Your task to perform on an android device: Search for vegetarian restaurants on Maps Image 0: 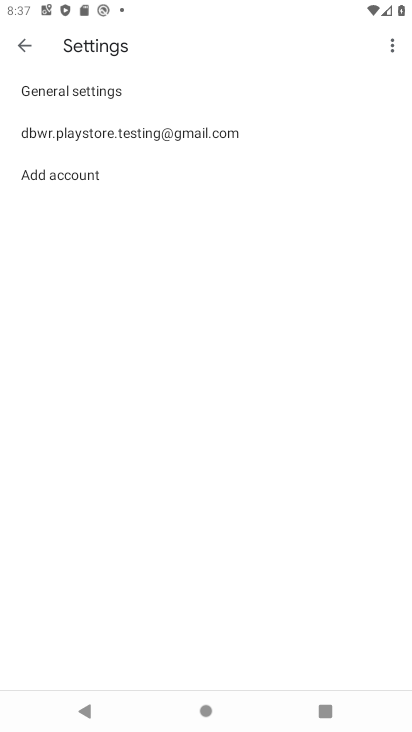
Step 0: press home button
Your task to perform on an android device: Search for vegetarian restaurants on Maps Image 1: 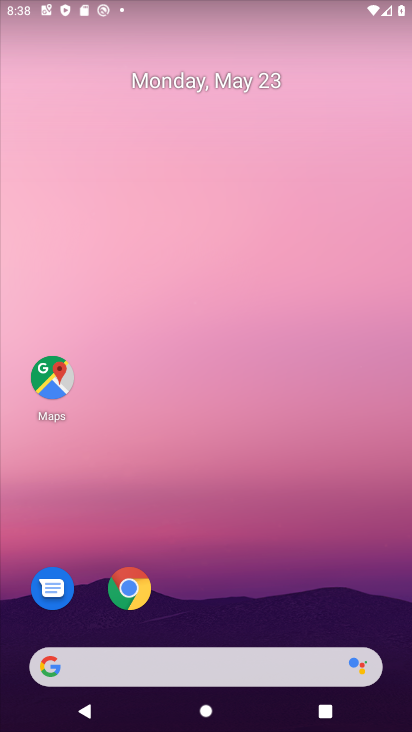
Step 1: click (46, 381)
Your task to perform on an android device: Search for vegetarian restaurants on Maps Image 2: 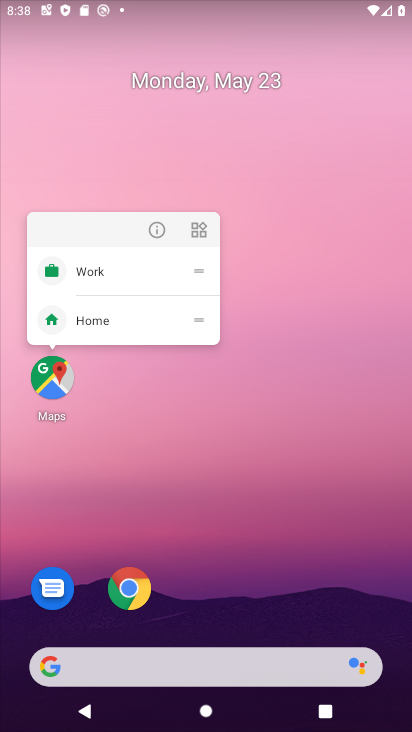
Step 2: click (46, 381)
Your task to perform on an android device: Search for vegetarian restaurants on Maps Image 3: 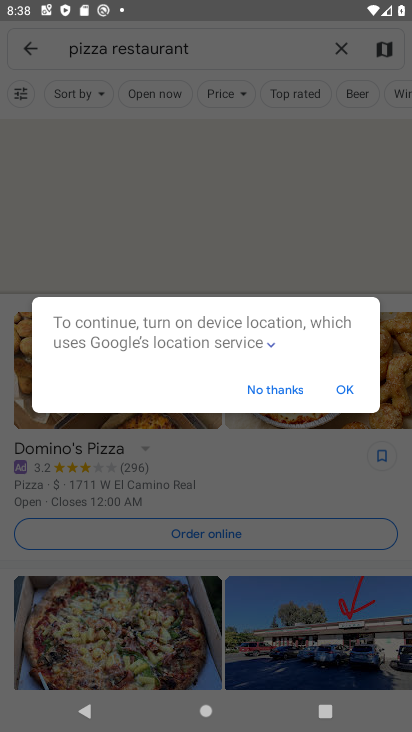
Step 3: click (334, 388)
Your task to perform on an android device: Search for vegetarian restaurants on Maps Image 4: 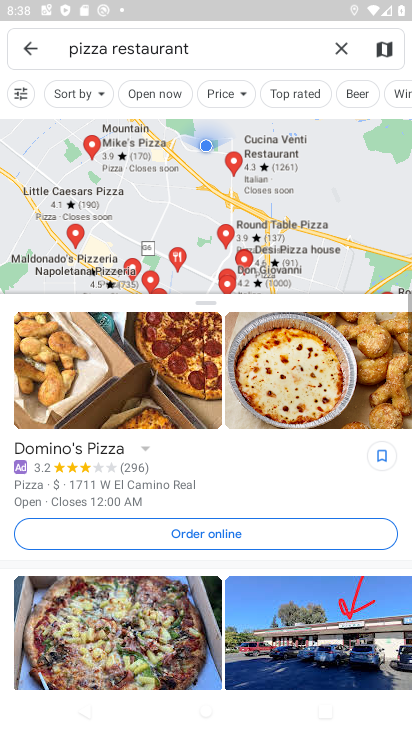
Step 4: click (342, 46)
Your task to perform on an android device: Search for vegetarian restaurants on Maps Image 5: 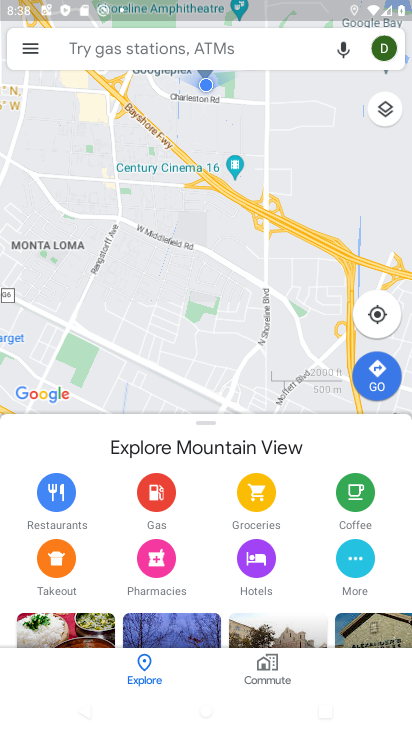
Step 5: click (67, 47)
Your task to perform on an android device: Search for vegetarian restaurants on Maps Image 6: 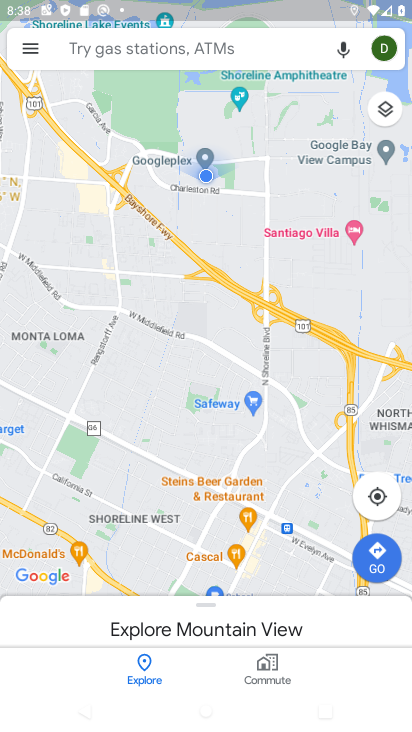
Step 6: click (93, 42)
Your task to perform on an android device: Search for vegetarian restaurants on Maps Image 7: 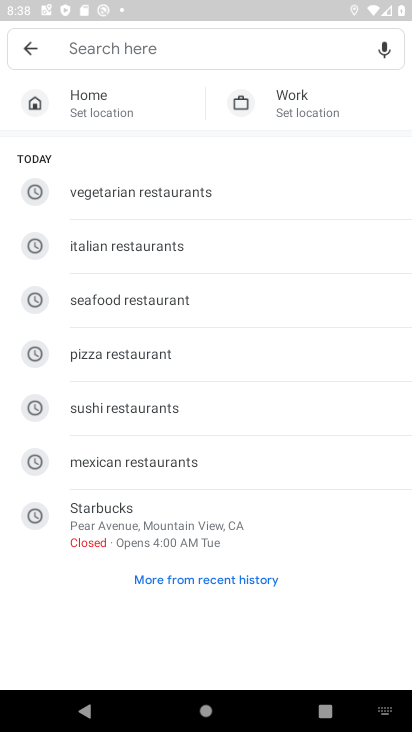
Step 7: type "vegetarian restaurants"
Your task to perform on an android device: Search for vegetarian restaurants on Maps Image 8: 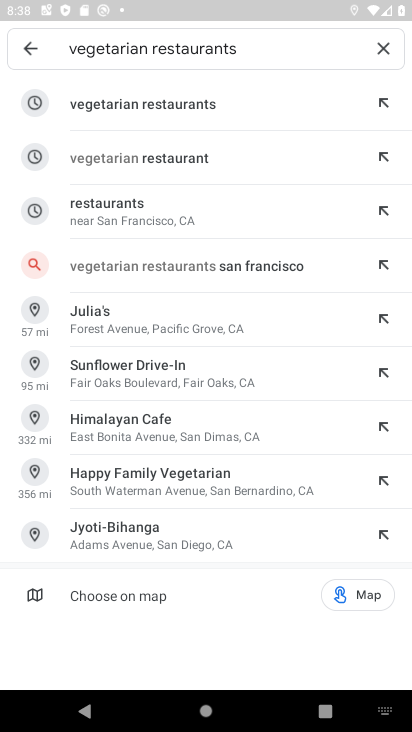
Step 8: click (180, 106)
Your task to perform on an android device: Search for vegetarian restaurants on Maps Image 9: 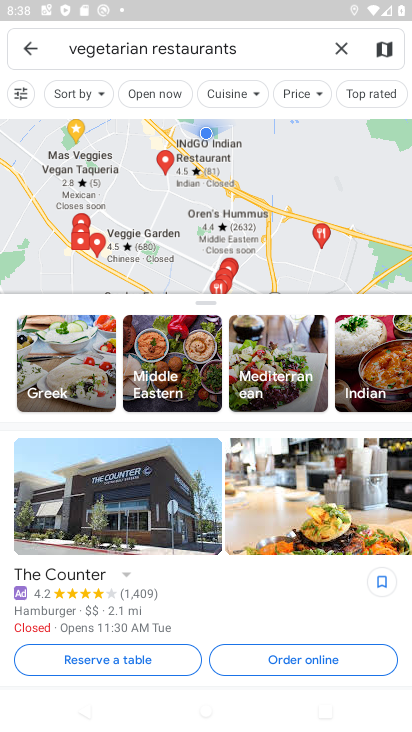
Step 9: task complete